Your task to perform on an android device: uninstall "Microsoft Authenticator" Image 0: 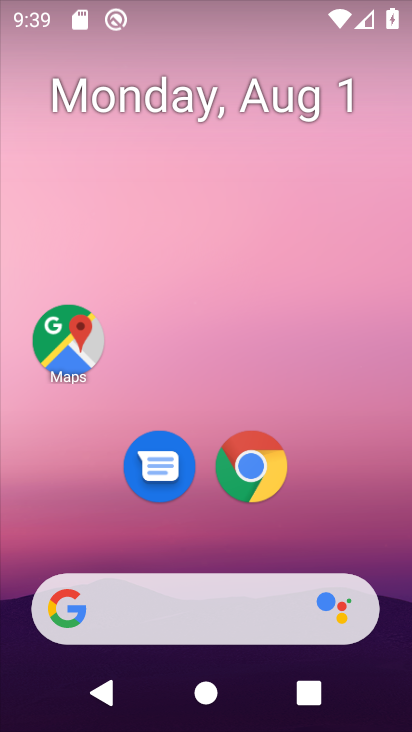
Step 0: click (292, 183)
Your task to perform on an android device: uninstall "Microsoft Authenticator" Image 1: 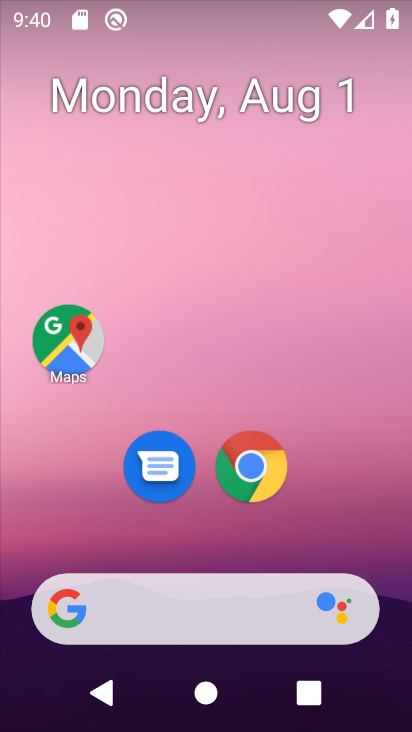
Step 1: drag from (238, 715) to (266, 135)
Your task to perform on an android device: uninstall "Microsoft Authenticator" Image 2: 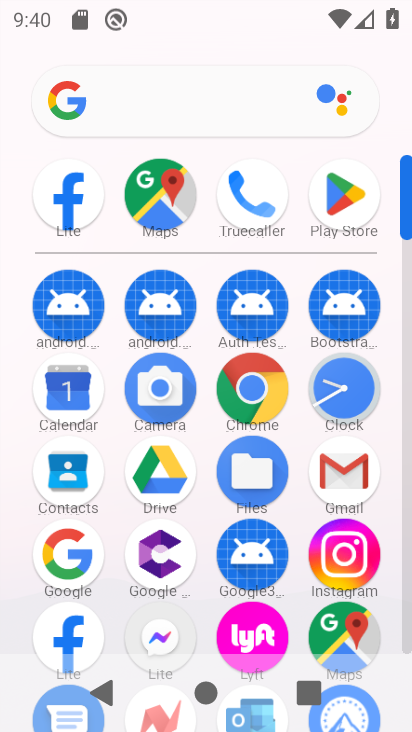
Step 2: click (347, 191)
Your task to perform on an android device: uninstall "Microsoft Authenticator" Image 3: 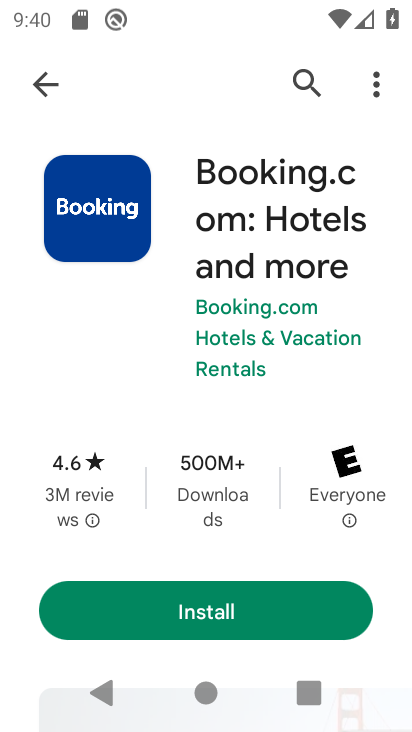
Step 3: click (300, 81)
Your task to perform on an android device: uninstall "Microsoft Authenticator" Image 4: 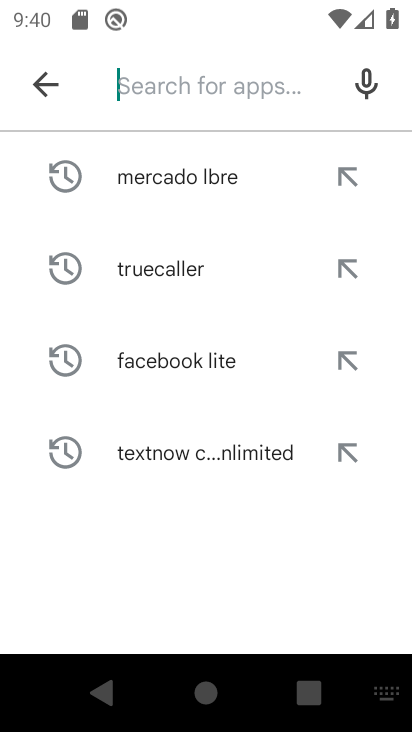
Step 4: type "Microsoft Authenticator"
Your task to perform on an android device: uninstall "Microsoft Authenticator" Image 5: 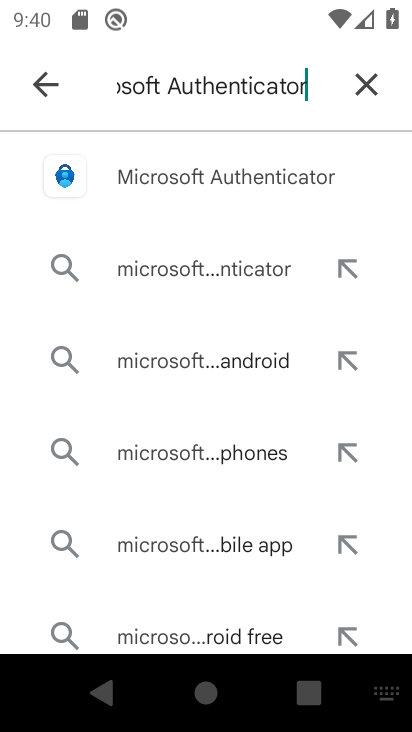
Step 5: click (219, 175)
Your task to perform on an android device: uninstall "Microsoft Authenticator" Image 6: 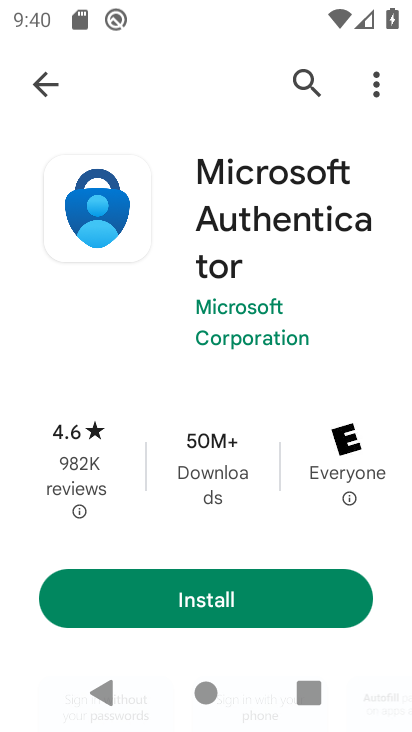
Step 6: task complete